Your task to perform on an android device: Play the last video I watched on Youtube Image 0: 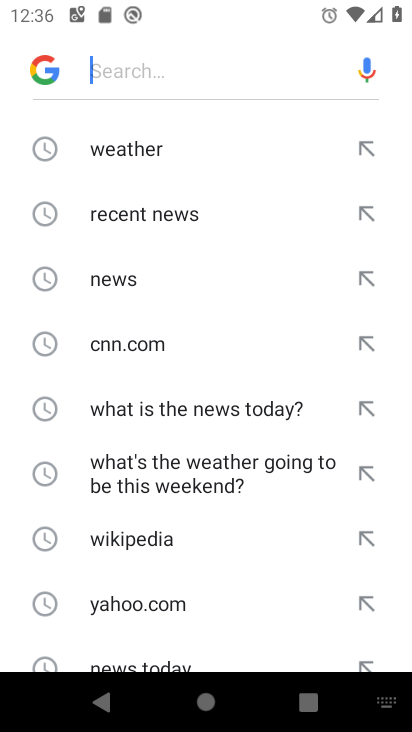
Step 0: press home button
Your task to perform on an android device: Play the last video I watched on Youtube Image 1: 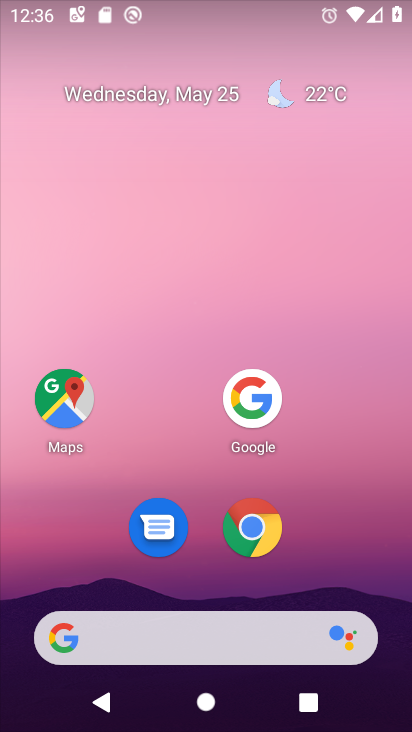
Step 1: drag from (204, 631) to (288, 223)
Your task to perform on an android device: Play the last video I watched on Youtube Image 2: 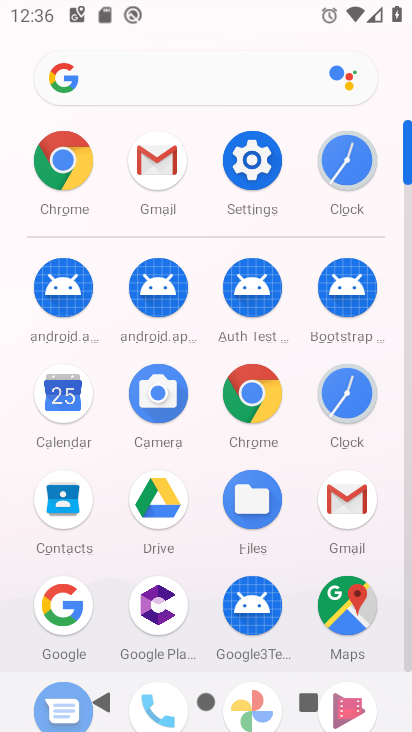
Step 2: drag from (278, 604) to (308, 287)
Your task to perform on an android device: Play the last video I watched on Youtube Image 3: 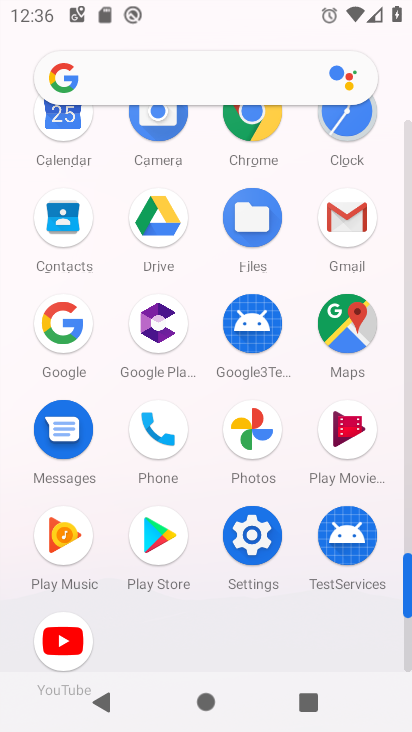
Step 3: click (74, 636)
Your task to perform on an android device: Play the last video I watched on Youtube Image 4: 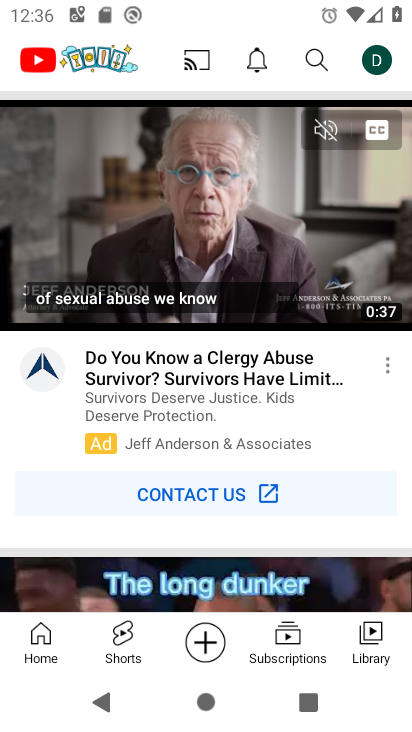
Step 4: click (370, 658)
Your task to perform on an android device: Play the last video I watched on Youtube Image 5: 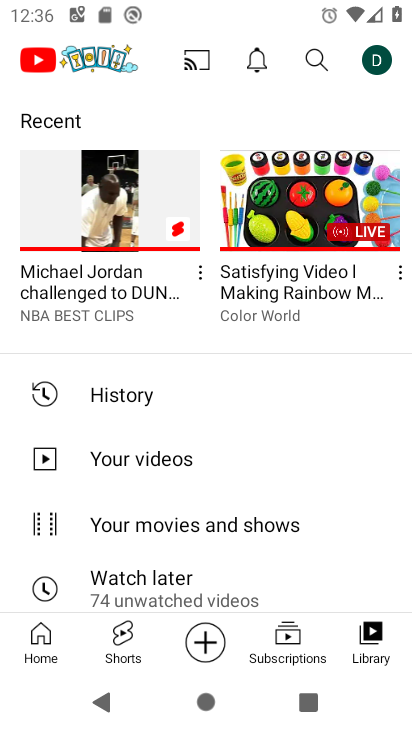
Step 5: click (112, 206)
Your task to perform on an android device: Play the last video I watched on Youtube Image 6: 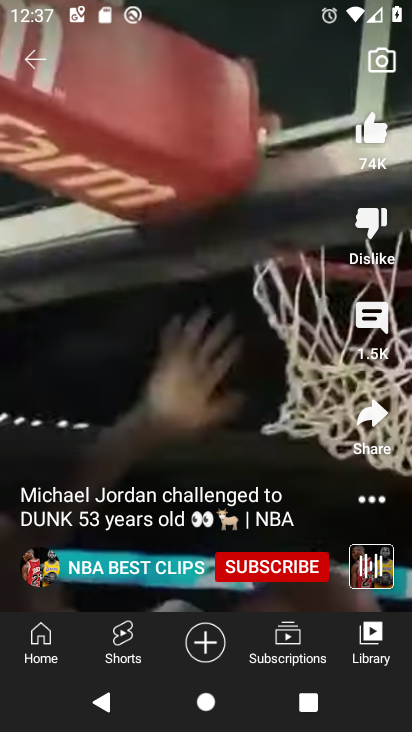
Step 6: click (41, 59)
Your task to perform on an android device: Play the last video I watched on Youtube Image 7: 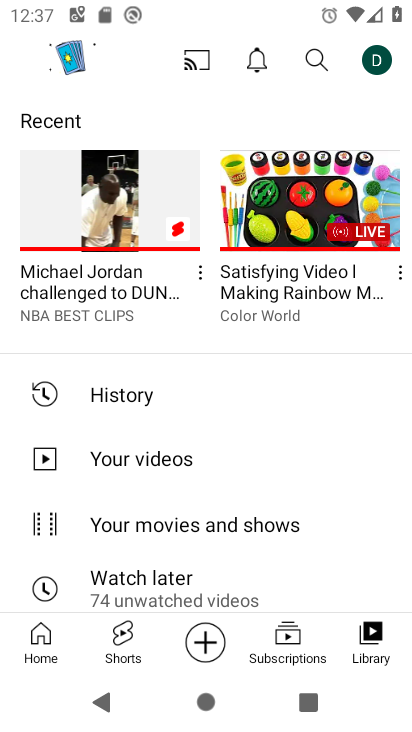
Step 7: task complete